Your task to perform on an android device: turn on sleep mode Image 0: 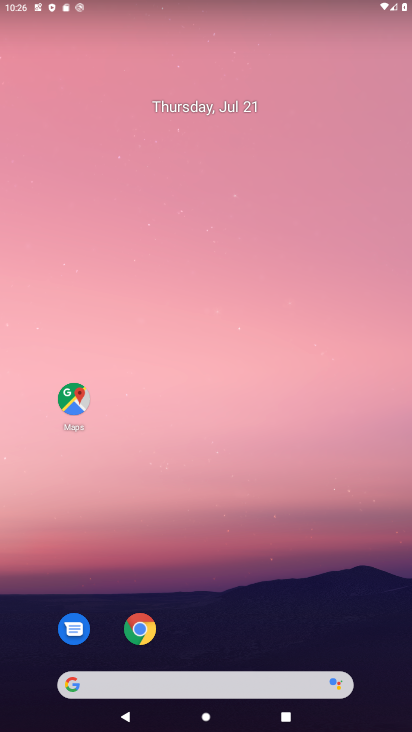
Step 0: click (313, 82)
Your task to perform on an android device: turn on sleep mode Image 1: 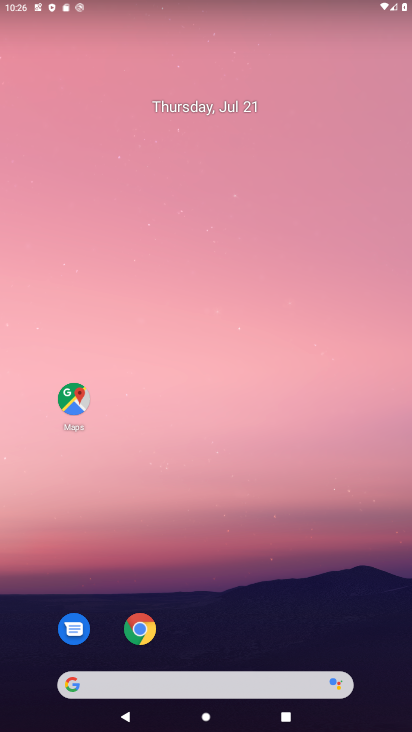
Step 1: drag from (222, 608) to (230, 78)
Your task to perform on an android device: turn on sleep mode Image 2: 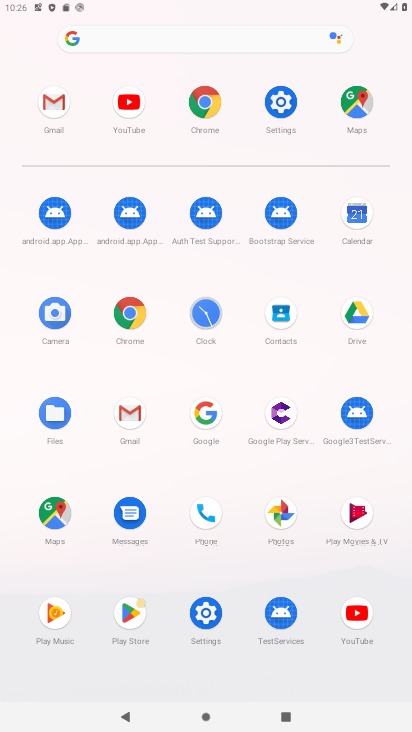
Step 2: click (277, 123)
Your task to perform on an android device: turn on sleep mode Image 3: 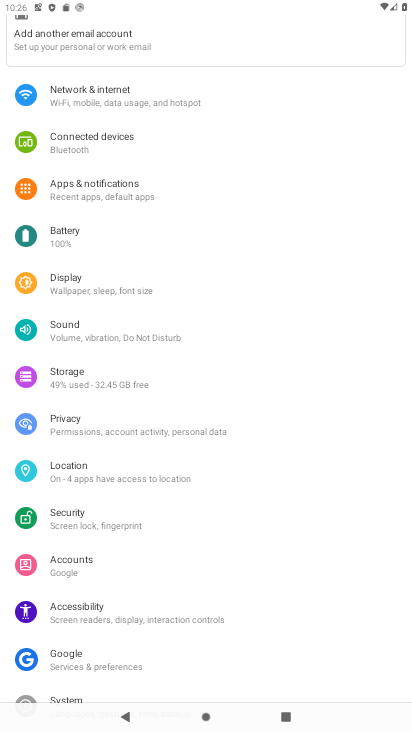
Step 3: task complete